Your task to perform on an android device: move a message to another label in the gmail app Image 0: 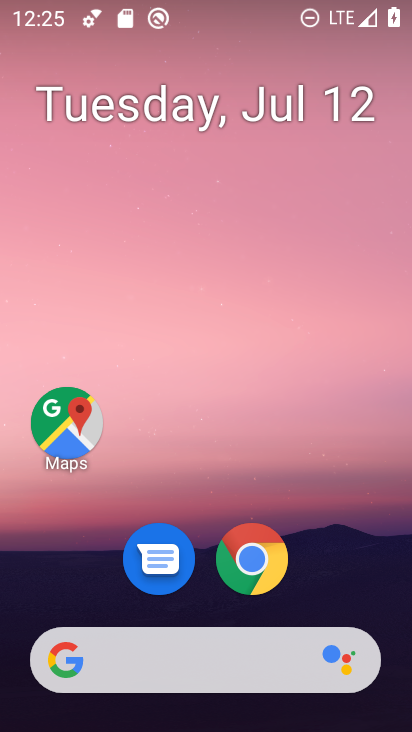
Step 0: drag from (182, 599) to (179, 61)
Your task to perform on an android device: move a message to another label in the gmail app Image 1: 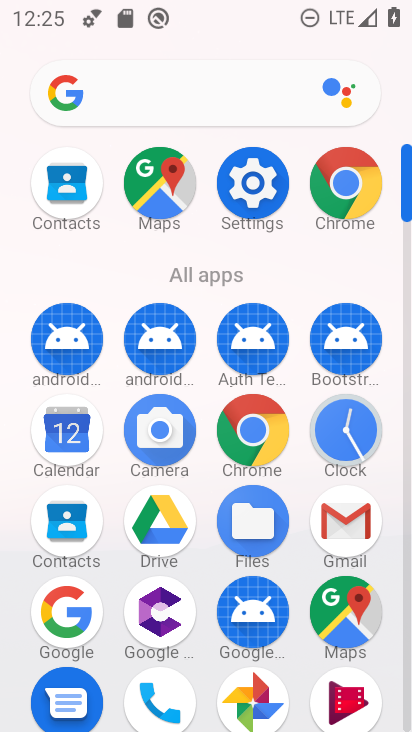
Step 1: click (325, 516)
Your task to perform on an android device: move a message to another label in the gmail app Image 2: 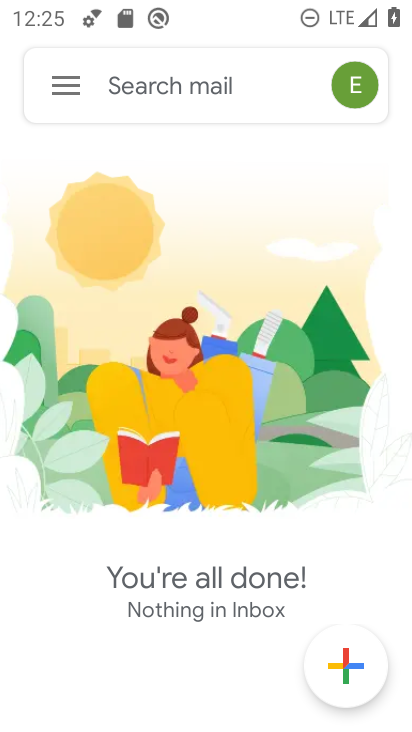
Step 2: click (71, 87)
Your task to perform on an android device: move a message to another label in the gmail app Image 3: 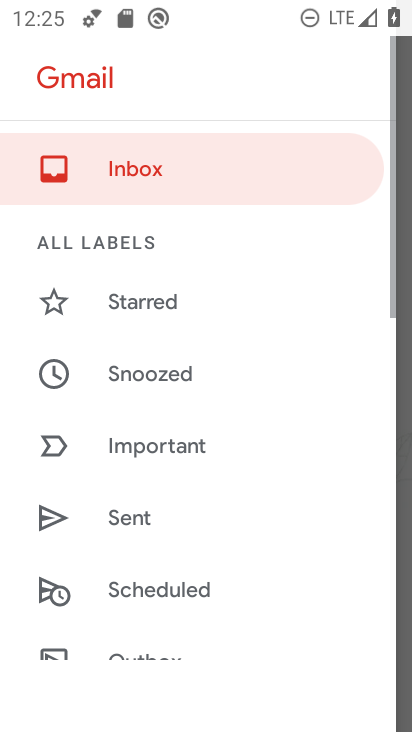
Step 3: drag from (182, 560) to (225, 123)
Your task to perform on an android device: move a message to another label in the gmail app Image 4: 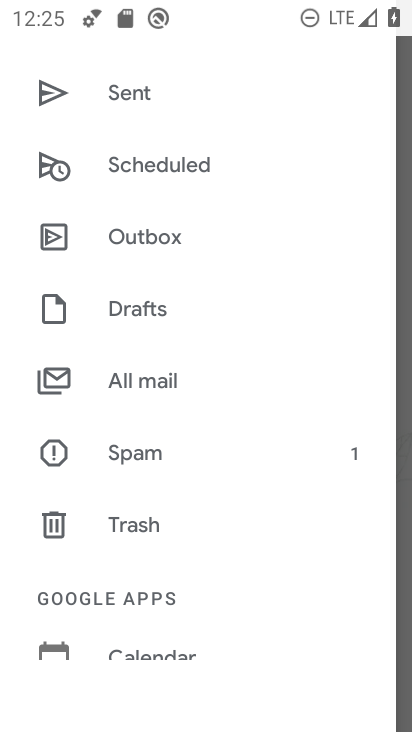
Step 4: click (179, 387)
Your task to perform on an android device: move a message to another label in the gmail app Image 5: 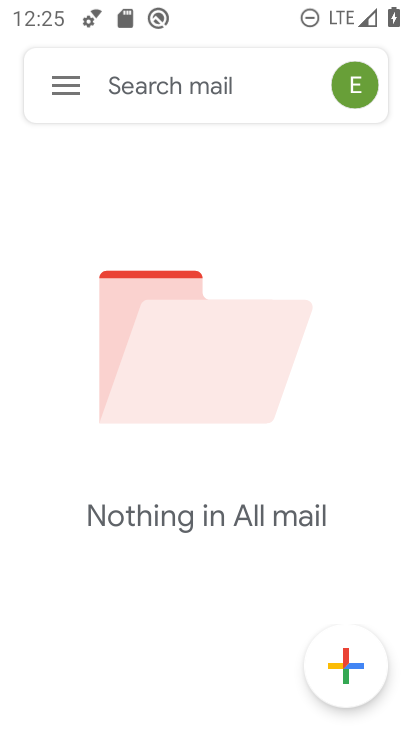
Step 5: task complete